Your task to perform on an android device: open a bookmark in the chrome app Image 0: 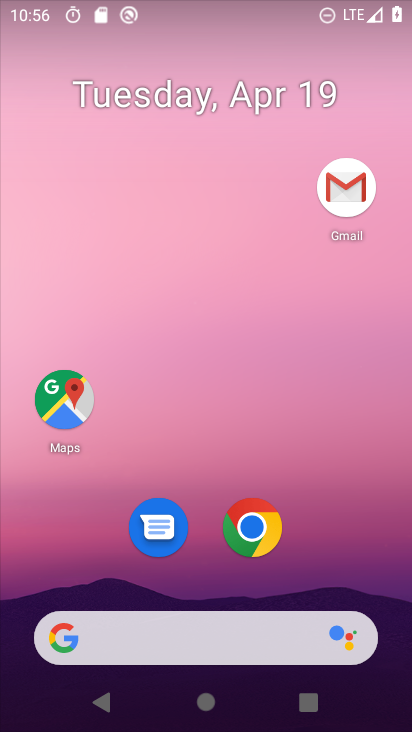
Step 0: click (67, 414)
Your task to perform on an android device: open a bookmark in the chrome app Image 1: 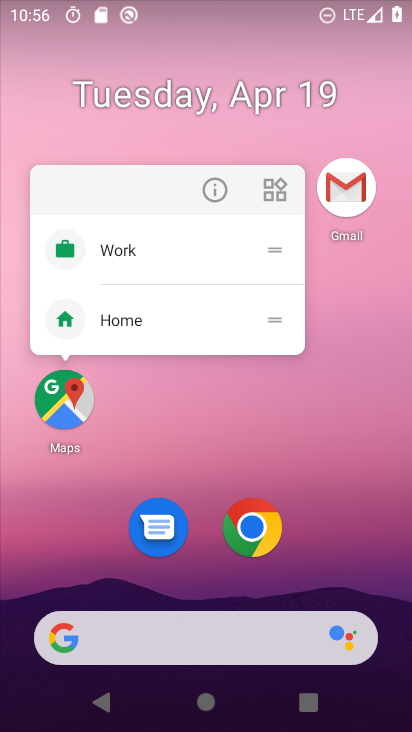
Step 1: click (270, 531)
Your task to perform on an android device: open a bookmark in the chrome app Image 2: 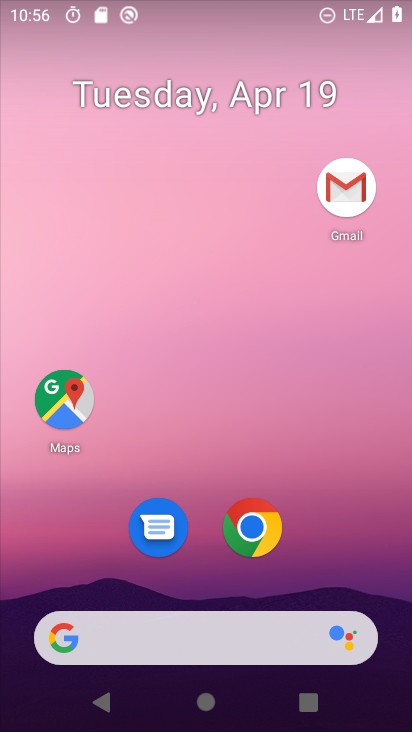
Step 2: click (270, 531)
Your task to perform on an android device: open a bookmark in the chrome app Image 3: 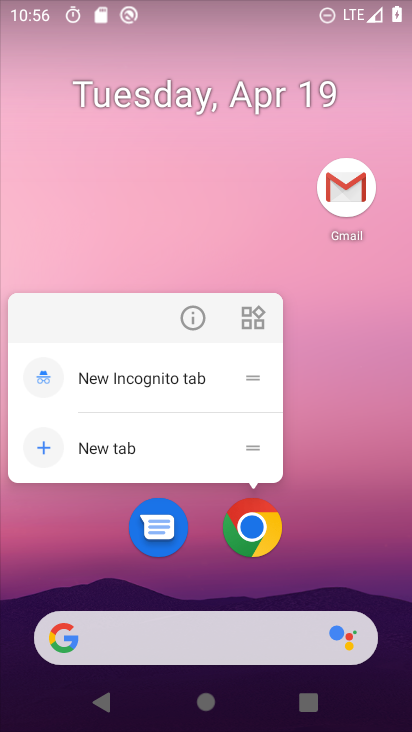
Step 3: drag from (333, 527) to (364, 125)
Your task to perform on an android device: open a bookmark in the chrome app Image 4: 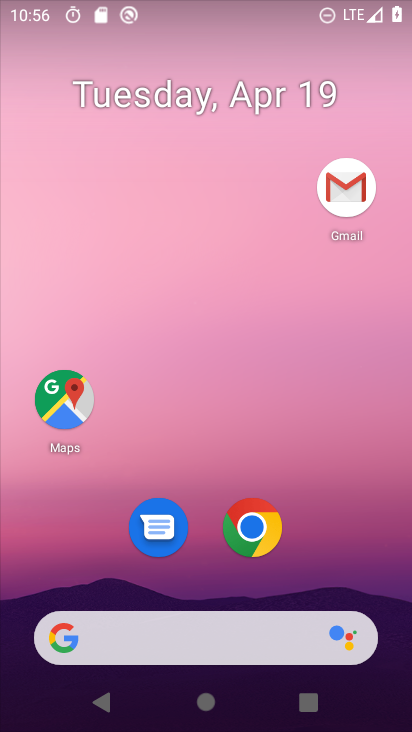
Step 4: drag from (325, 389) to (322, 51)
Your task to perform on an android device: open a bookmark in the chrome app Image 5: 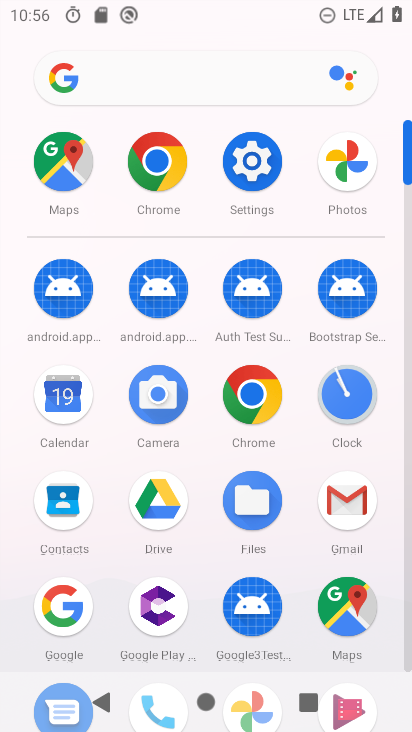
Step 5: click (145, 147)
Your task to perform on an android device: open a bookmark in the chrome app Image 6: 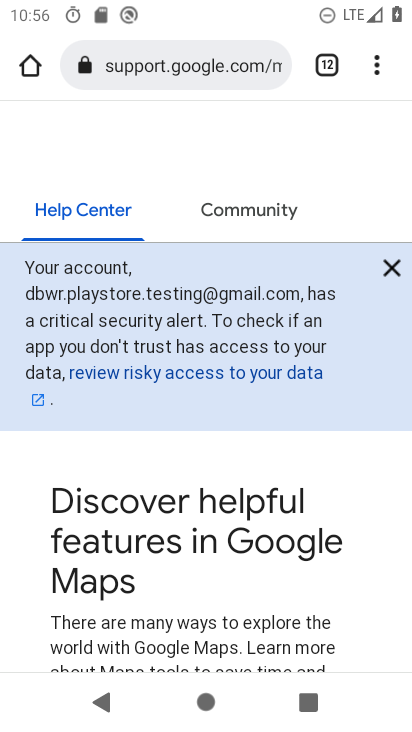
Step 6: click (377, 67)
Your task to perform on an android device: open a bookmark in the chrome app Image 7: 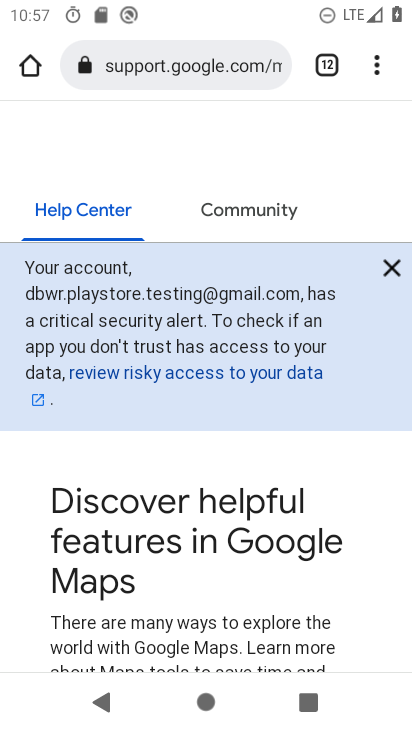
Step 7: task complete